Your task to perform on an android device: change timer sound Image 0: 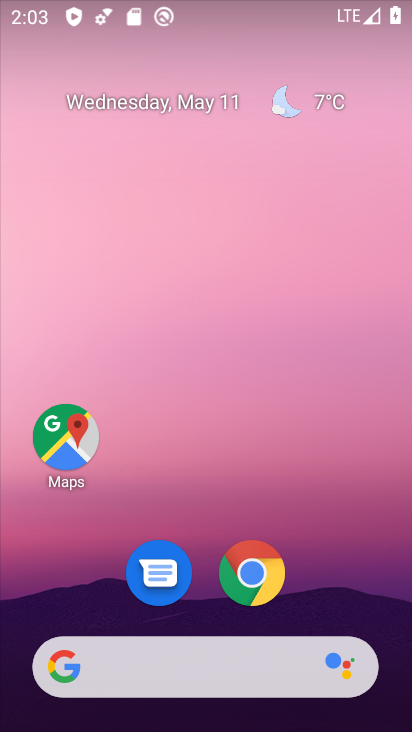
Step 0: drag from (123, 630) to (212, 186)
Your task to perform on an android device: change timer sound Image 1: 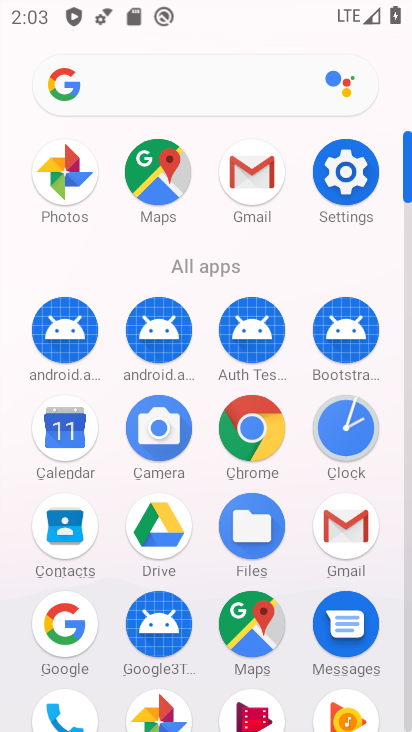
Step 1: click (351, 422)
Your task to perform on an android device: change timer sound Image 2: 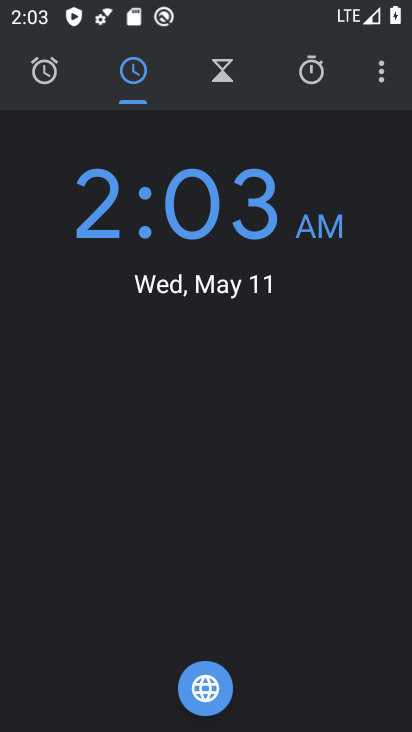
Step 2: click (393, 62)
Your task to perform on an android device: change timer sound Image 3: 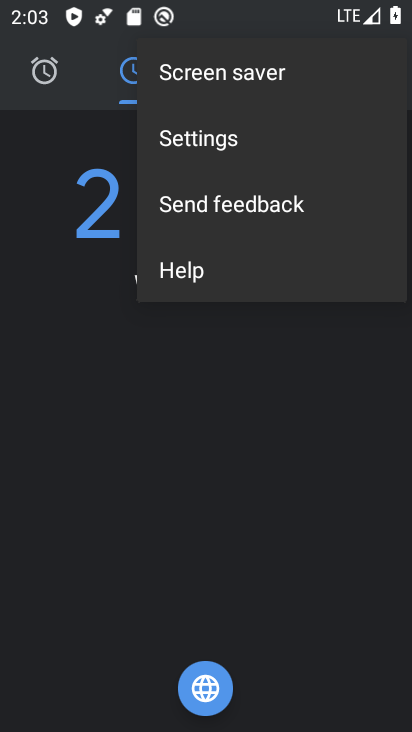
Step 3: click (339, 154)
Your task to perform on an android device: change timer sound Image 4: 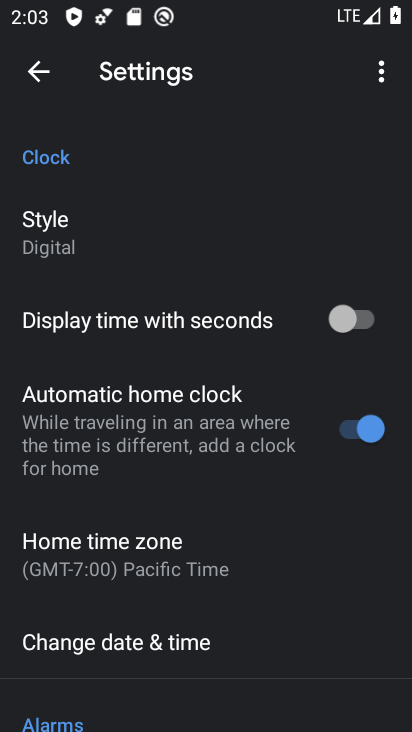
Step 4: drag from (208, 607) to (334, 86)
Your task to perform on an android device: change timer sound Image 5: 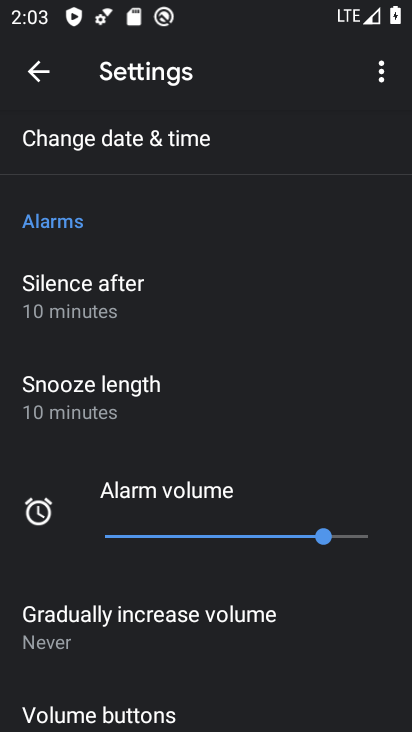
Step 5: drag from (143, 584) to (260, 172)
Your task to perform on an android device: change timer sound Image 6: 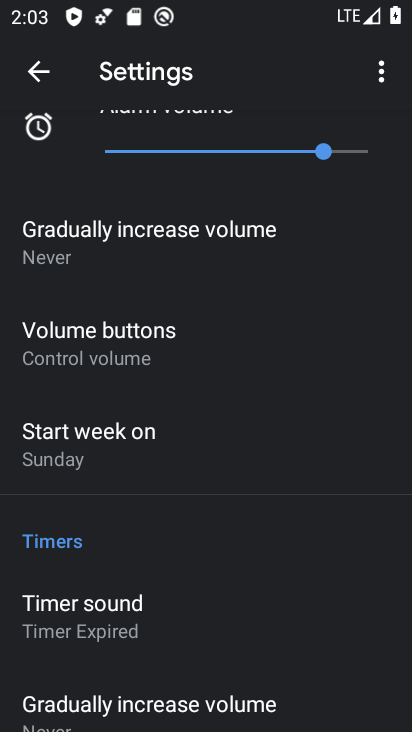
Step 6: click (173, 612)
Your task to perform on an android device: change timer sound Image 7: 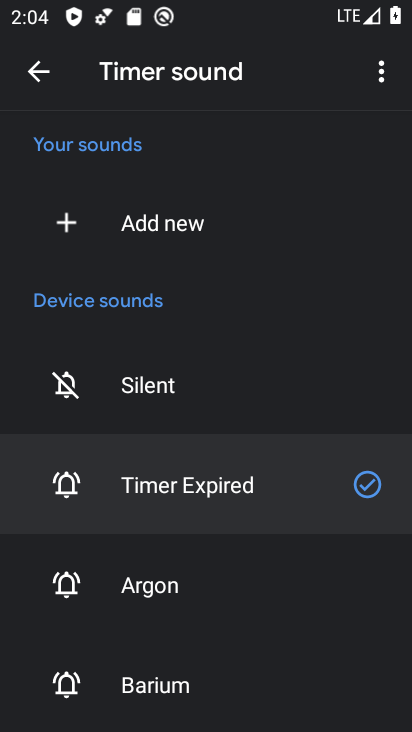
Step 7: drag from (184, 650) to (277, 268)
Your task to perform on an android device: change timer sound Image 8: 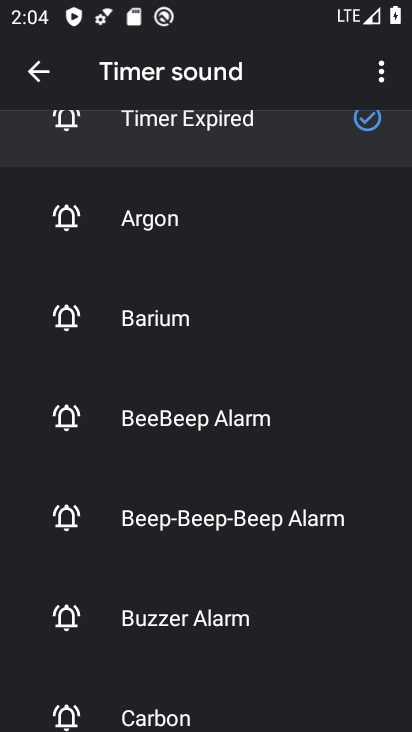
Step 8: click (198, 699)
Your task to perform on an android device: change timer sound Image 9: 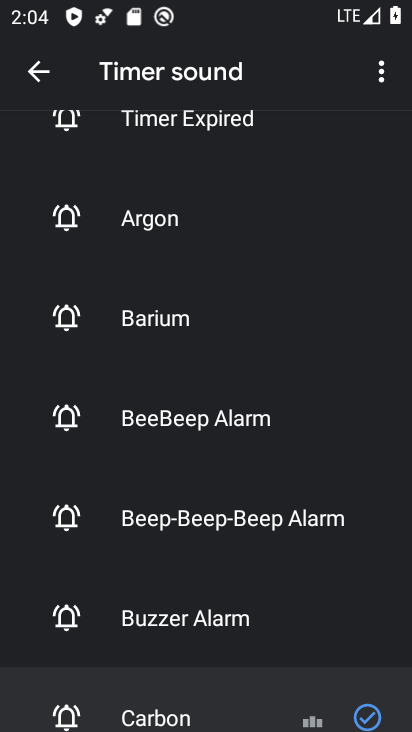
Step 9: task complete